Your task to perform on an android device: clear history in the chrome app Image 0: 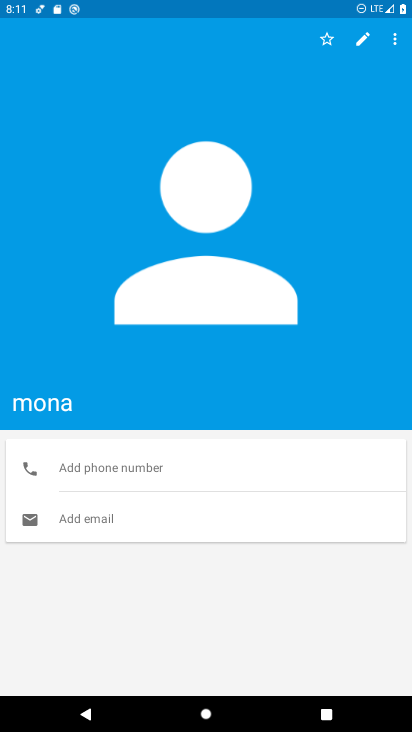
Step 0: press home button
Your task to perform on an android device: clear history in the chrome app Image 1: 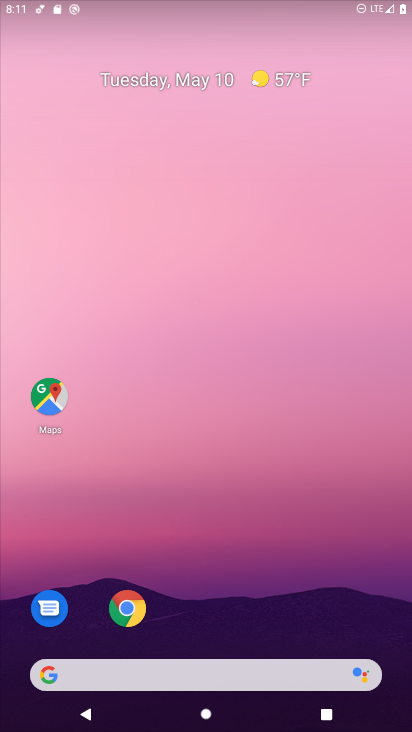
Step 1: drag from (336, 609) to (190, 84)
Your task to perform on an android device: clear history in the chrome app Image 2: 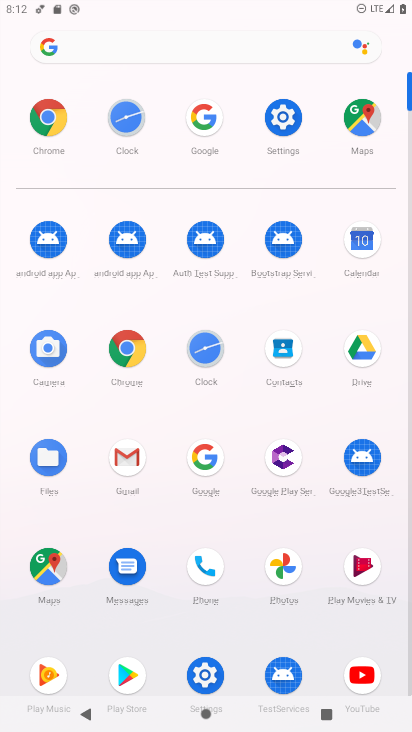
Step 2: click (128, 349)
Your task to perform on an android device: clear history in the chrome app Image 3: 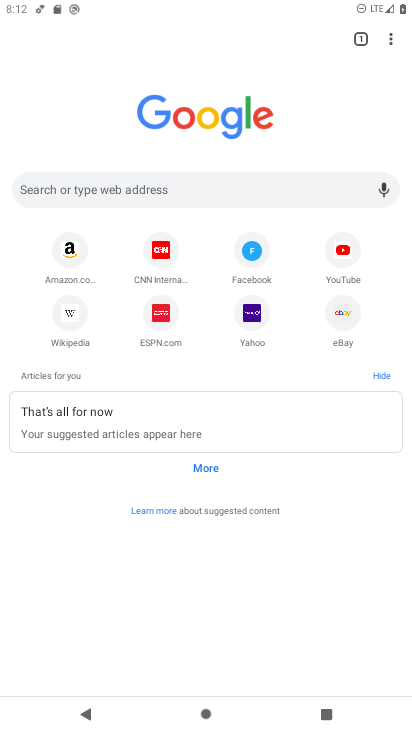
Step 3: click (387, 37)
Your task to perform on an android device: clear history in the chrome app Image 4: 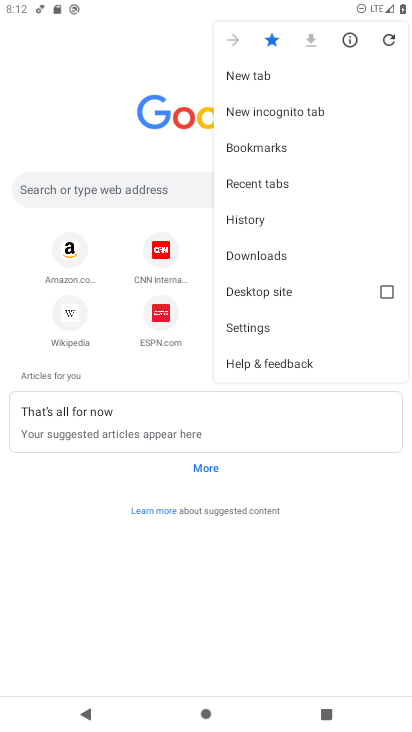
Step 4: click (272, 213)
Your task to perform on an android device: clear history in the chrome app Image 5: 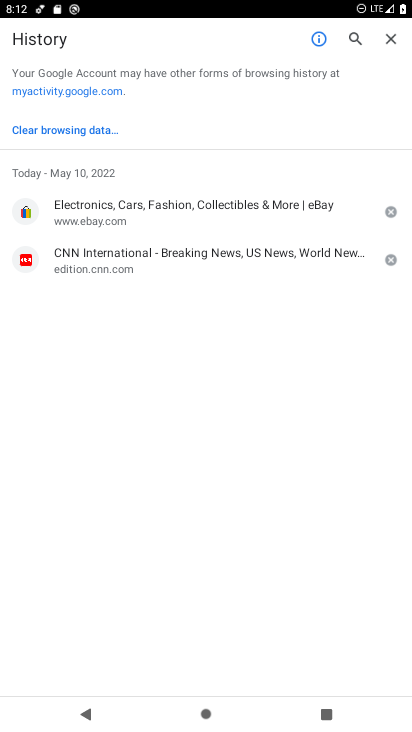
Step 5: click (37, 131)
Your task to perform on an android device: clear history in the chrome app Image 6: 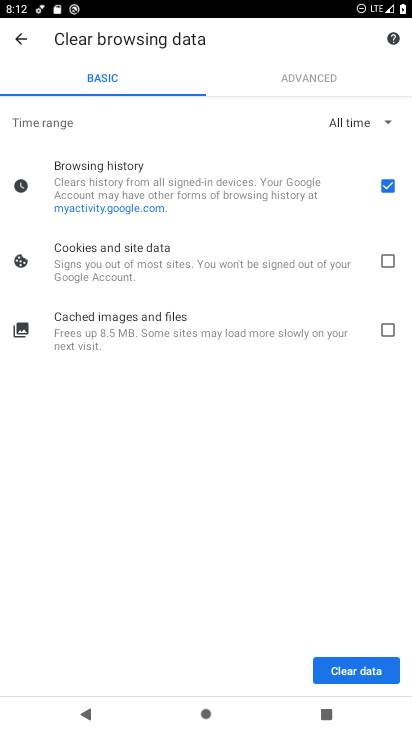
Step 6: click (369, 666)
Your task to perform on an android device: clear history in the chrome app Image 7: 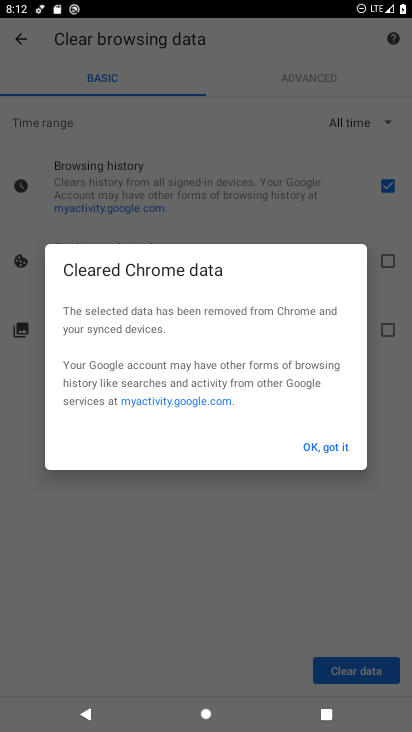
Step 7: click (312, 446)
Your task to perform on an android device: clear history in the chrome app Image 8: 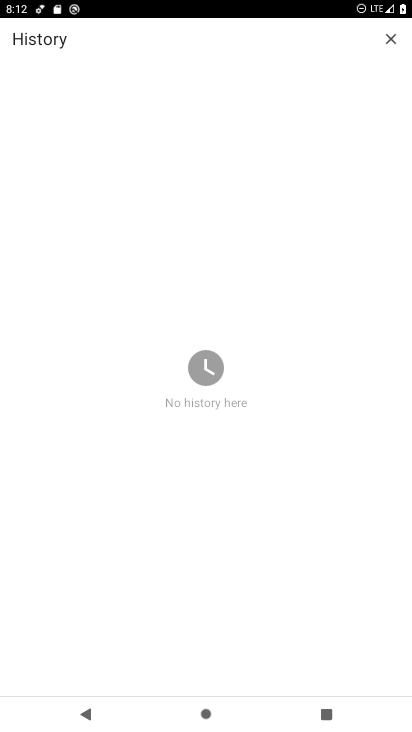
Step 8: task complete